Your task to perform on an android device: change alarm snooze length Image 0: 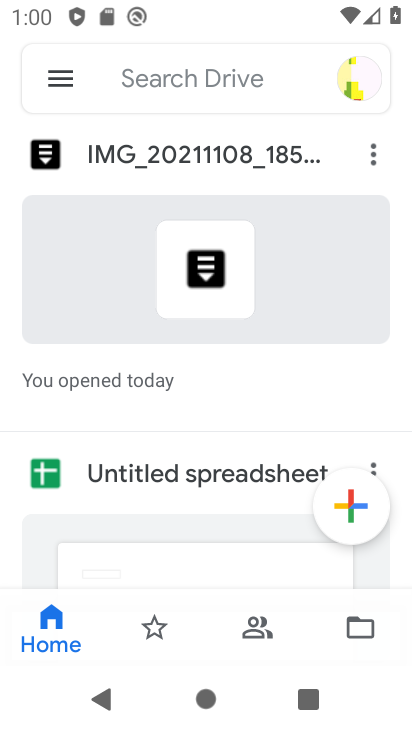
Step 0: press home button
Your task to perform on an android device: change alarm snooze length Image 1: 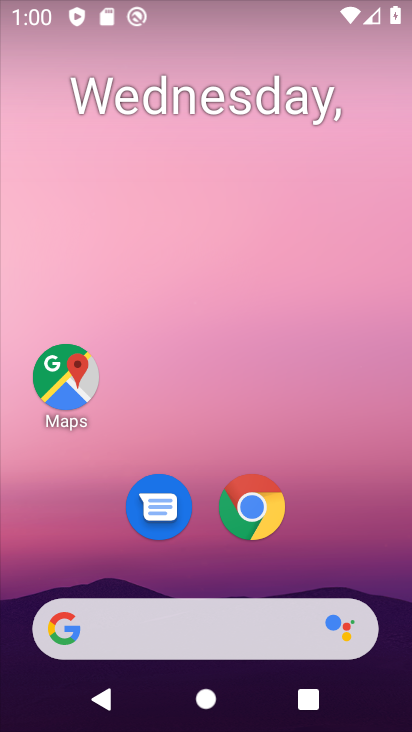
Step 1: drag from (368, 538) to (0, 298)
Your task to perform on an android device: change alarm snooze length Image 2: 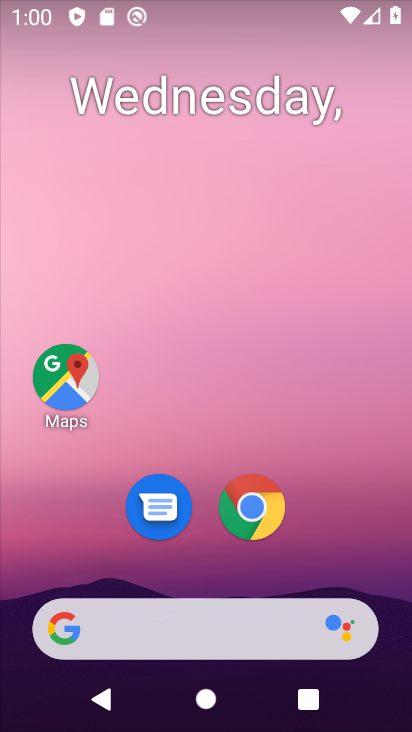
Step 2: drag from (355, 537) to (376, 41)
Your task to perform on an android device: change alarm snooze length Image 3: 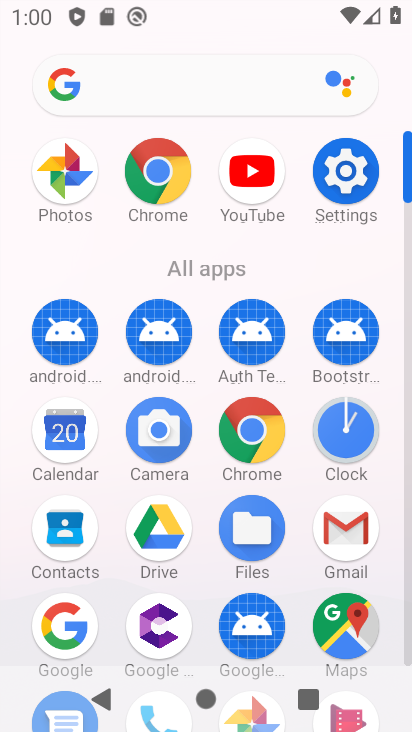
Step 3: click (347, 412)
Your task to perform on an android device: change alarm snooze length Image 4: 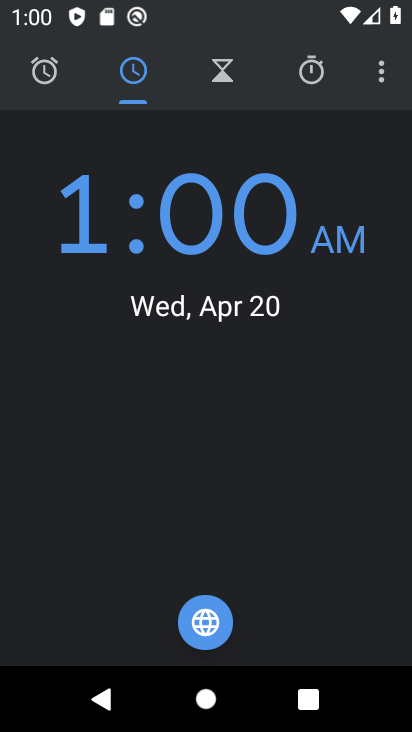
Step 4: click (387, 63)
Your task to perform on an android device: change alarm snooze length Image 5: 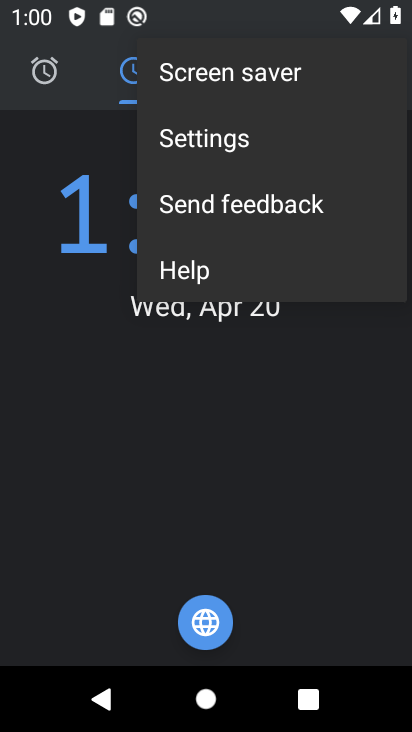
Step 5: click (176, 140)
Your task to perform on an android device: change alarm snooze length Image 6: 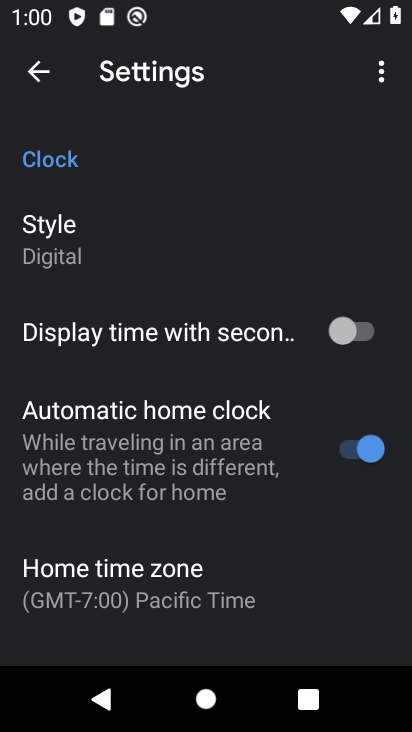
Step 6: click (242, 187)
Your task to perform on an android device: change alarm snooze length Image 7: 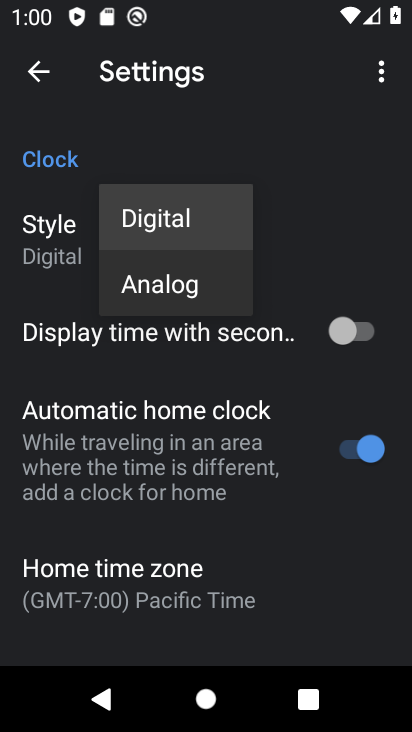
Step 7: drag from (190, 519) to (258, 302)
Your task to perform on an android device: change alarm snooze length Image 8: 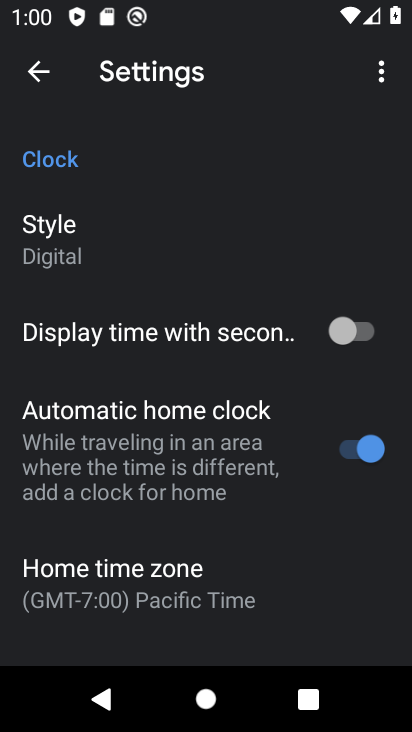
Step 8: drag from (186, 514) to (245, 150)
Your task to perform on an android device: change alarm snooze length Image 9: 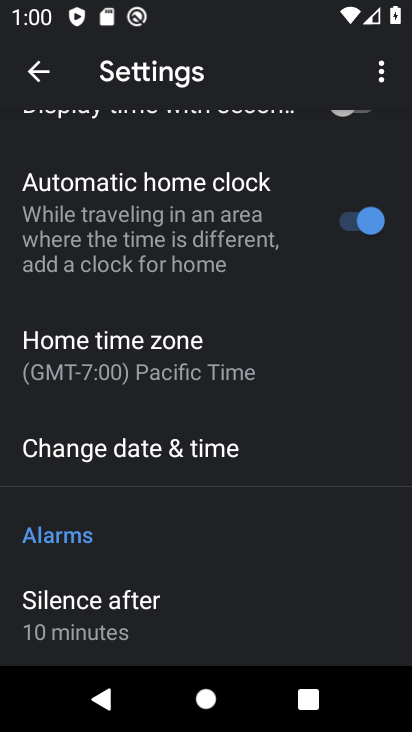
Step 9: drag from (209, 543) to (272, 248)
Your task to perform on an android device: change alarm snooze length Image 10: 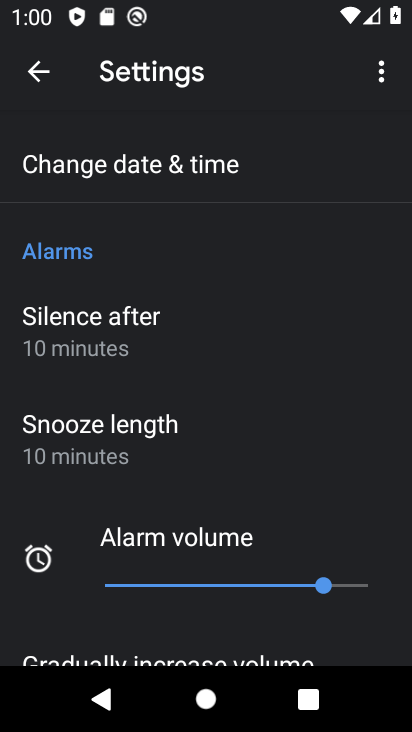
Step 10: click (131, 456)
Your task to perform on an android device: change alarm snooze length Image 11: 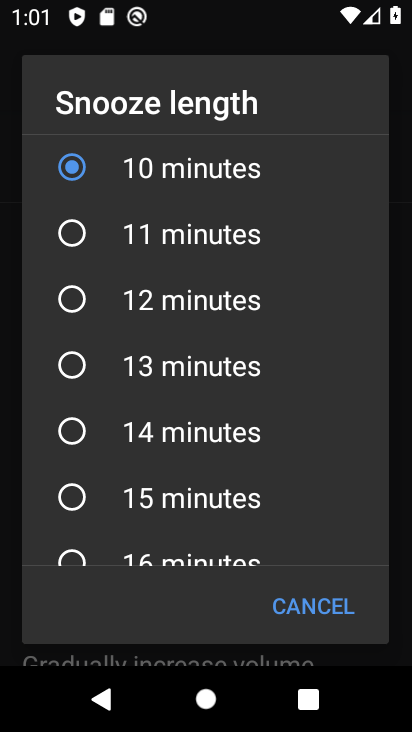
Step 11: click (64, 301)
Your task to perform on an android device: change alarm snooze length Image 12: 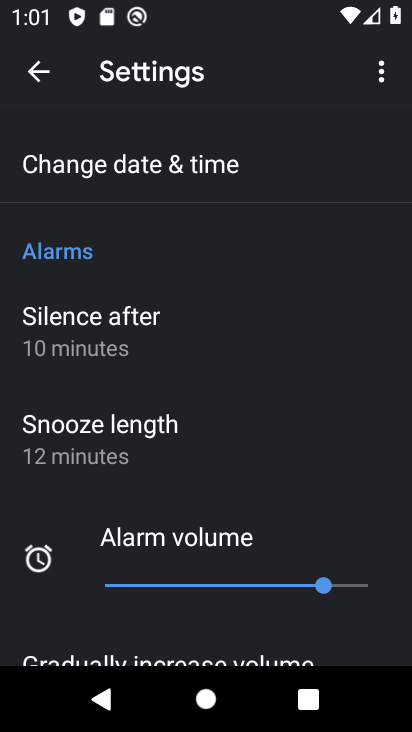
Step 12: task complete